Your task to perform on an android device: change the clock style Image 0: 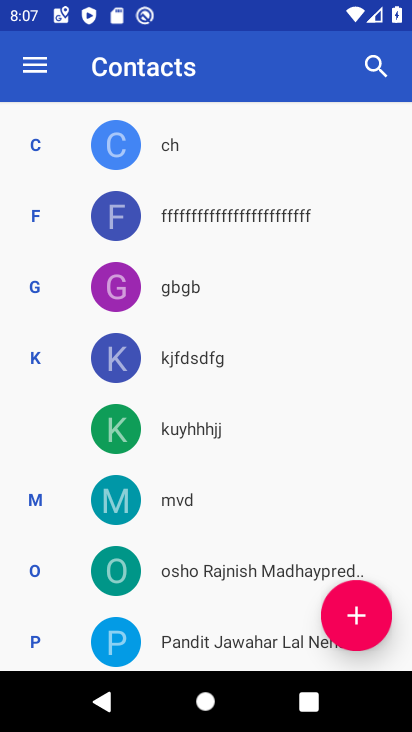
Step 0: press home button
Your task to perform on an android device: change the clock style Image 1: 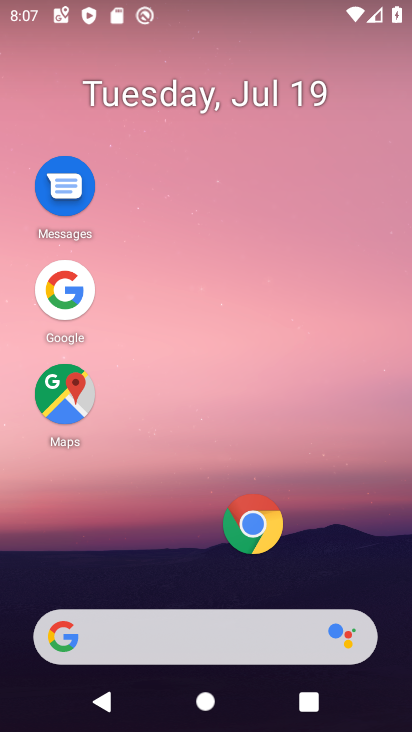
Step 1: drag from (200, 582) to (148, 60)
Your task to perform on an android device: change the clock style Image 2: 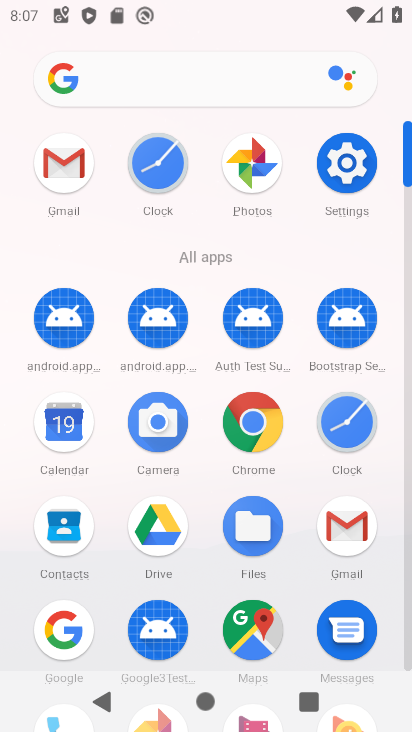
Step 2: click (346, 414)
Your task to perform on an android device: change the clock style Image 3: 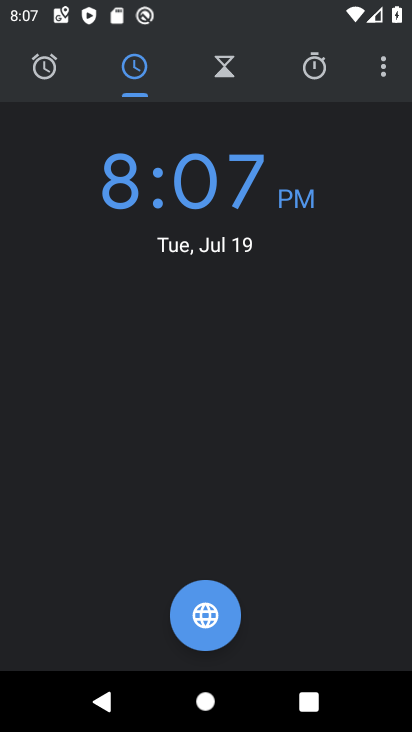
Step 3: click (383, 81)
Your task to perform on an android device: change the clock style Image 4: 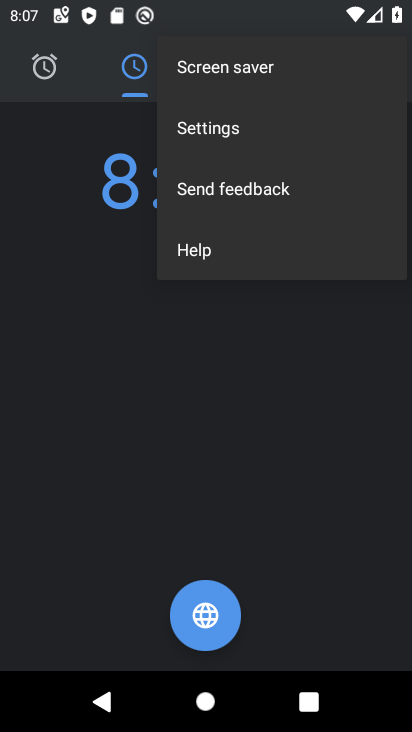
Step 4: click (223, 121)
Your task to perform on an android device: change the clock style Image 5: 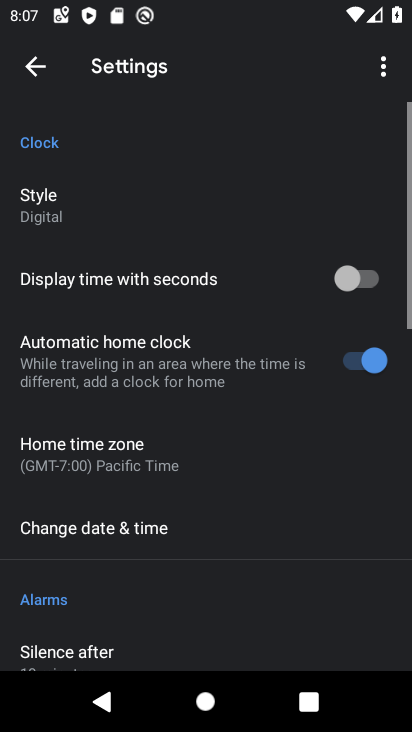
Step 5: click (223, 121)
Your task to perform on an android device: change the clock style Image 6: 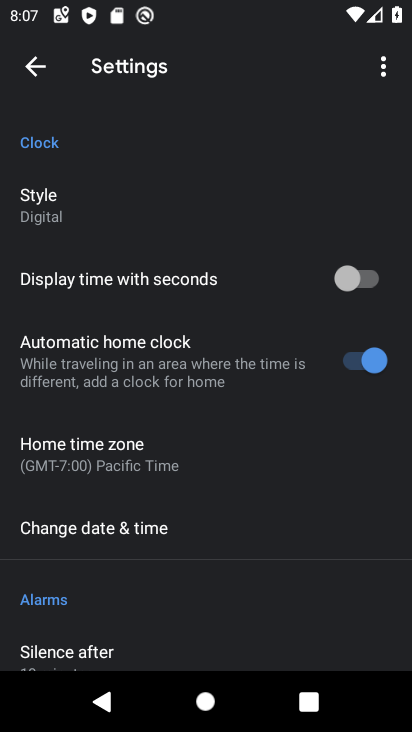
Step 6: click (57, 204)
Your task to perform on an android device: change the clock style Image 7: 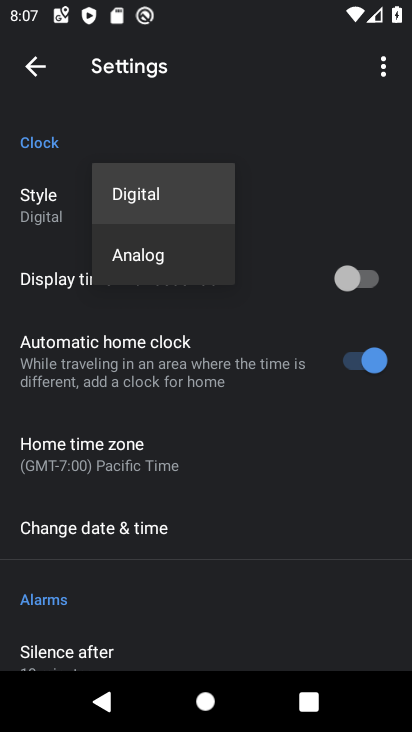
Step 7: click (145, 250)
Your task to perform on an android device: change the clock style Image 8: 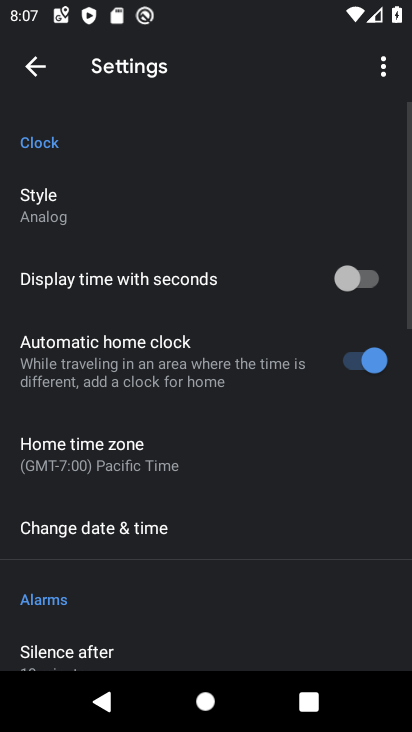
Step 8: task complete